Your task to perform on an android device: Show me productivity apps on the Play Store Image 0: 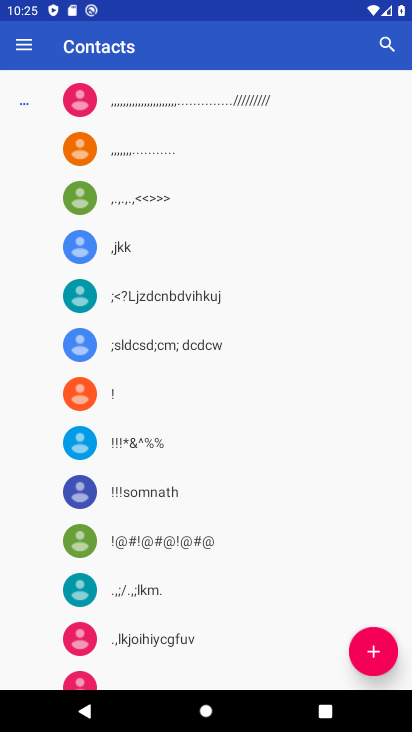
Step 0: press home button
Your task to perform on an android device: Show me productivity apps on the Play Store Image 1: 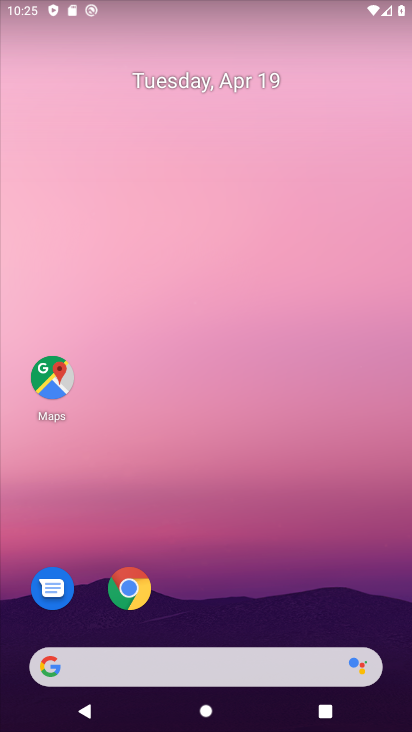
Step 1: drag from (205, 626) to (214, 45)
Your task to perform on an android device: Show me productivity apps on the Play Store Image 2: 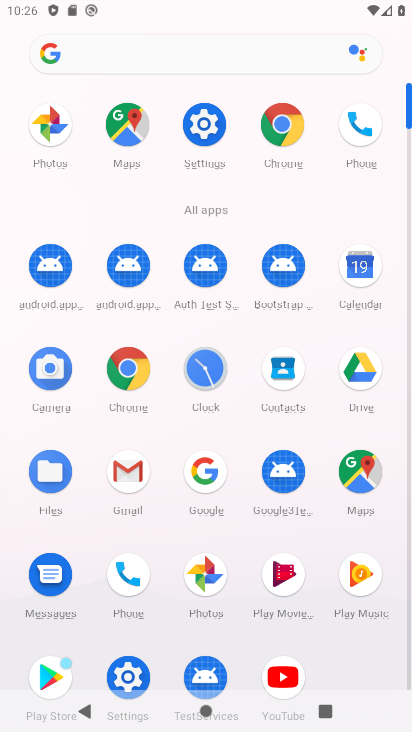
Step 2: click (51, 675)
Your task to perform on an android device: Show me productivity apps on the Play Store Image 3: 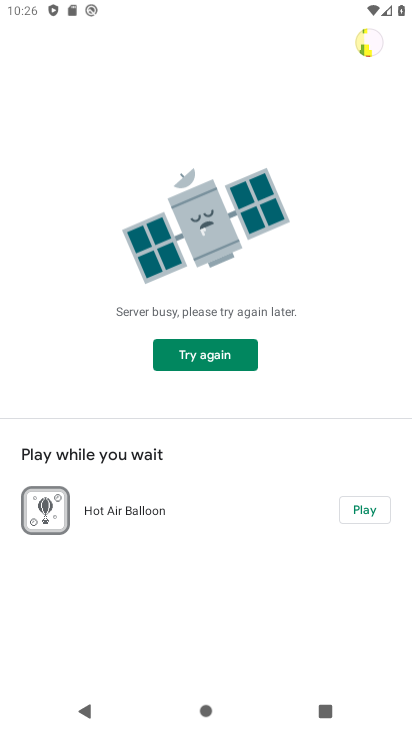
Step 3: click (195, 364)
Your task to perform on an android device: Show me productivity apps on the Play Store Image 4: 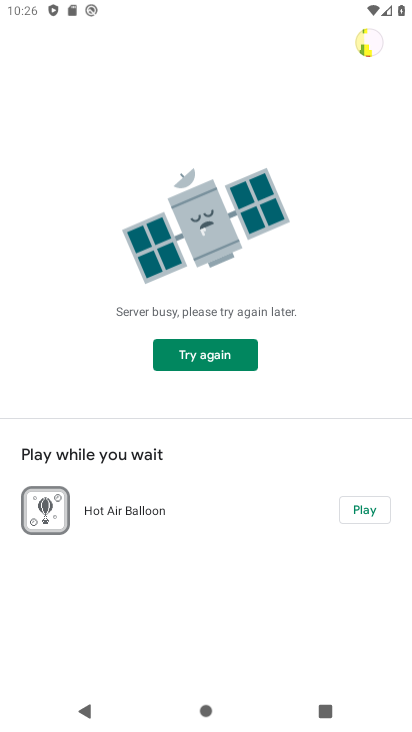
Step 4: click (195, 364)
Your task to perform on an android device: Show me productivity apps on the Play Store Image 5: 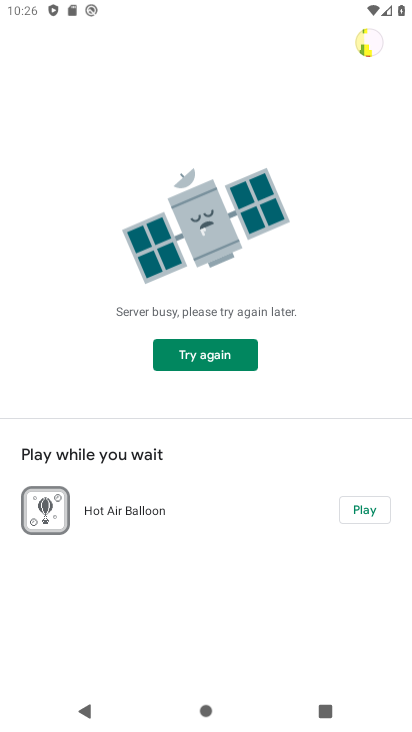
Step 5: click (356, 526)
Your task to perform on an android device: Show me productivity apps on the Play Store Image 6: 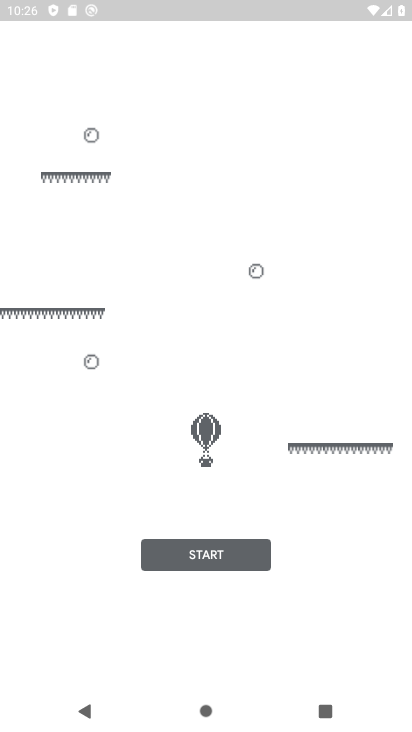
Step 6: click (252, 570)
Your task to perform on an android device: Show me productivity apps on the Play Store Image 7: 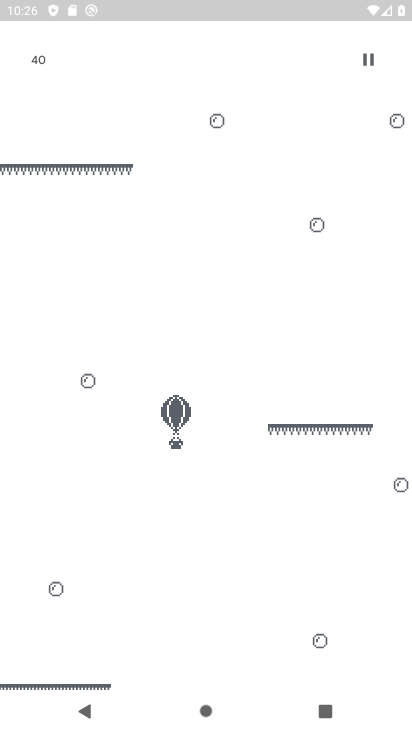
Step 7: click (205, 341)
Your task to perform on an android device: Show me productivity apps on the Play Store Image 8: 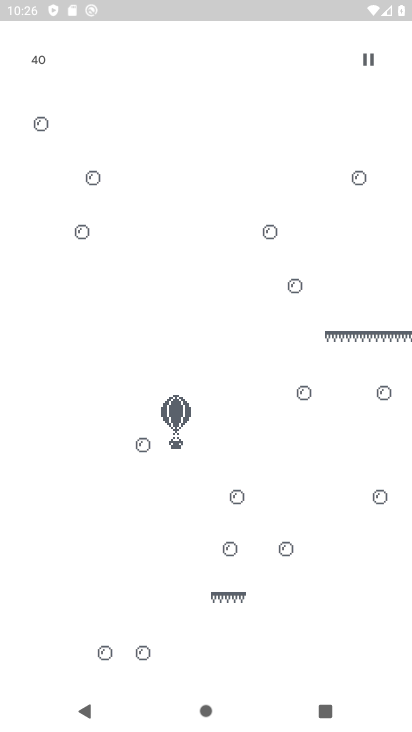
Step 8: click (227, 321)
Your task to perform on an android device: Show me productivity apps on the Play Store Image 9: 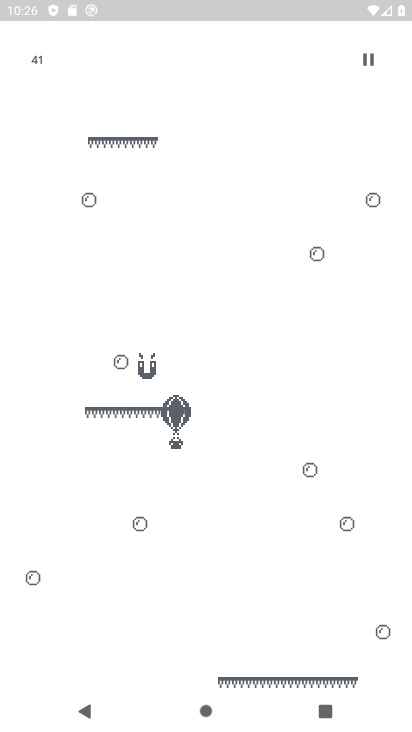
Step 9: click (191, 293)
Your task to perform on an android device: Show me productivity apps on the Play Store Image 10: 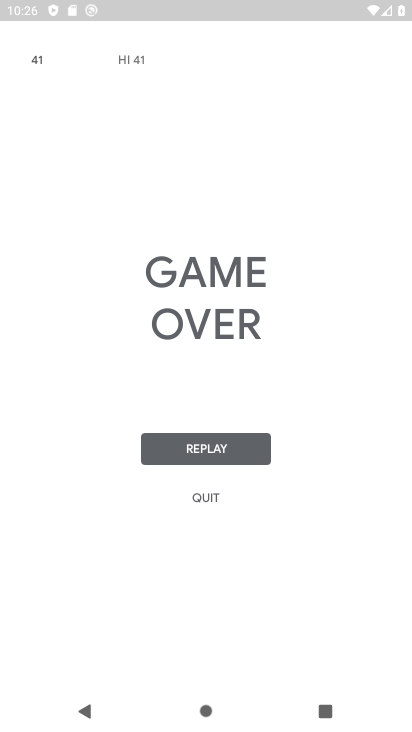
Step 10: task complete